Your task to perform on an android device: Open location settings Image 0: 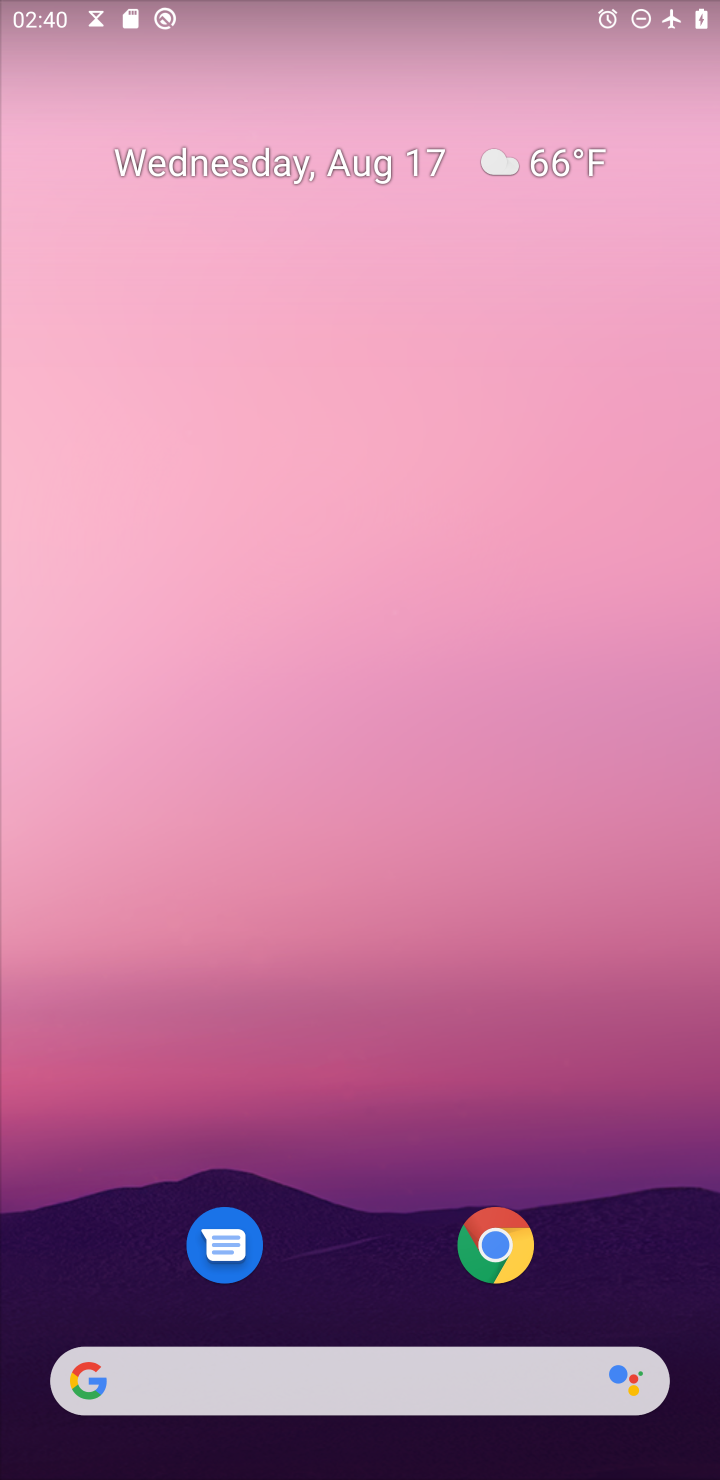
Step 0: drag from (323, 820) to (284, 337)
Your task to perform on an android device: Open location settings Image 1: 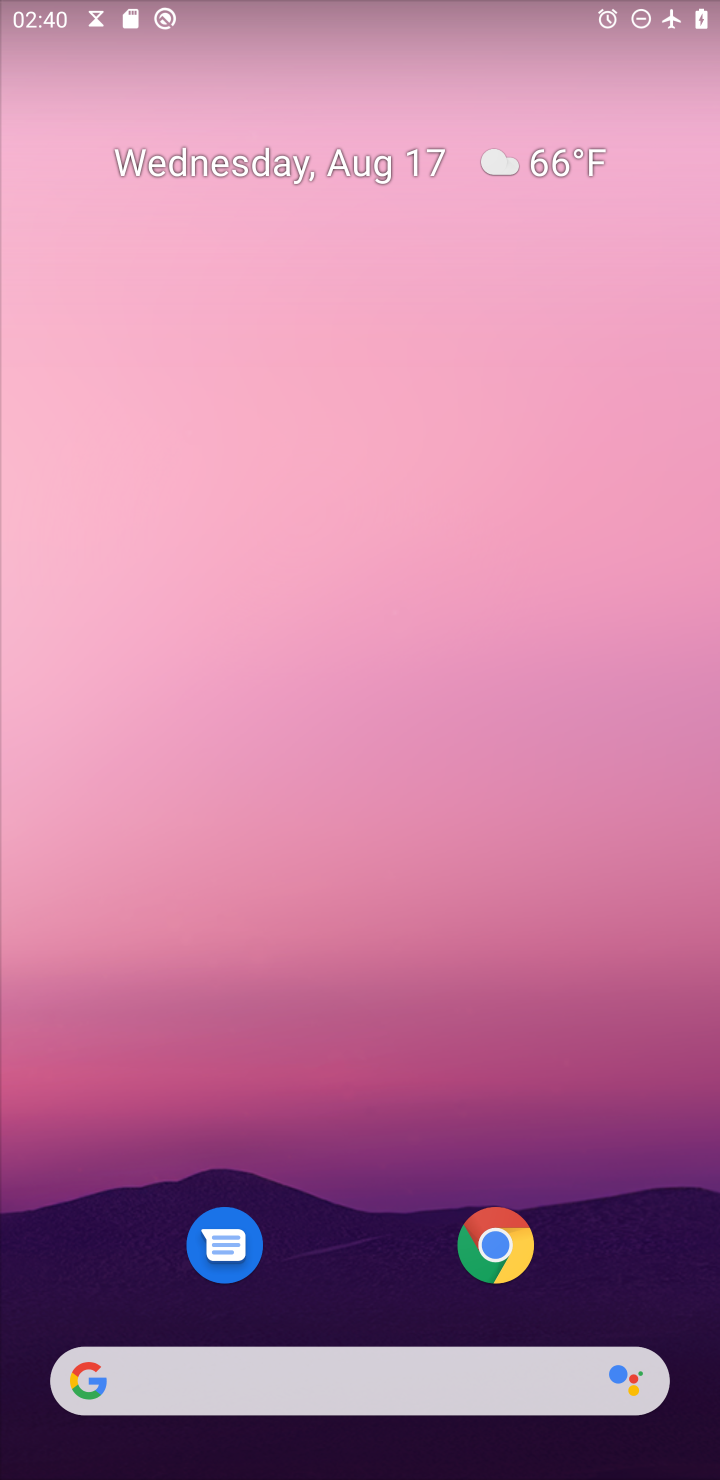
Step 1: drag from (357, 781) to (357, 187)
Your task to perform on an android device: Open location settings Image 2: 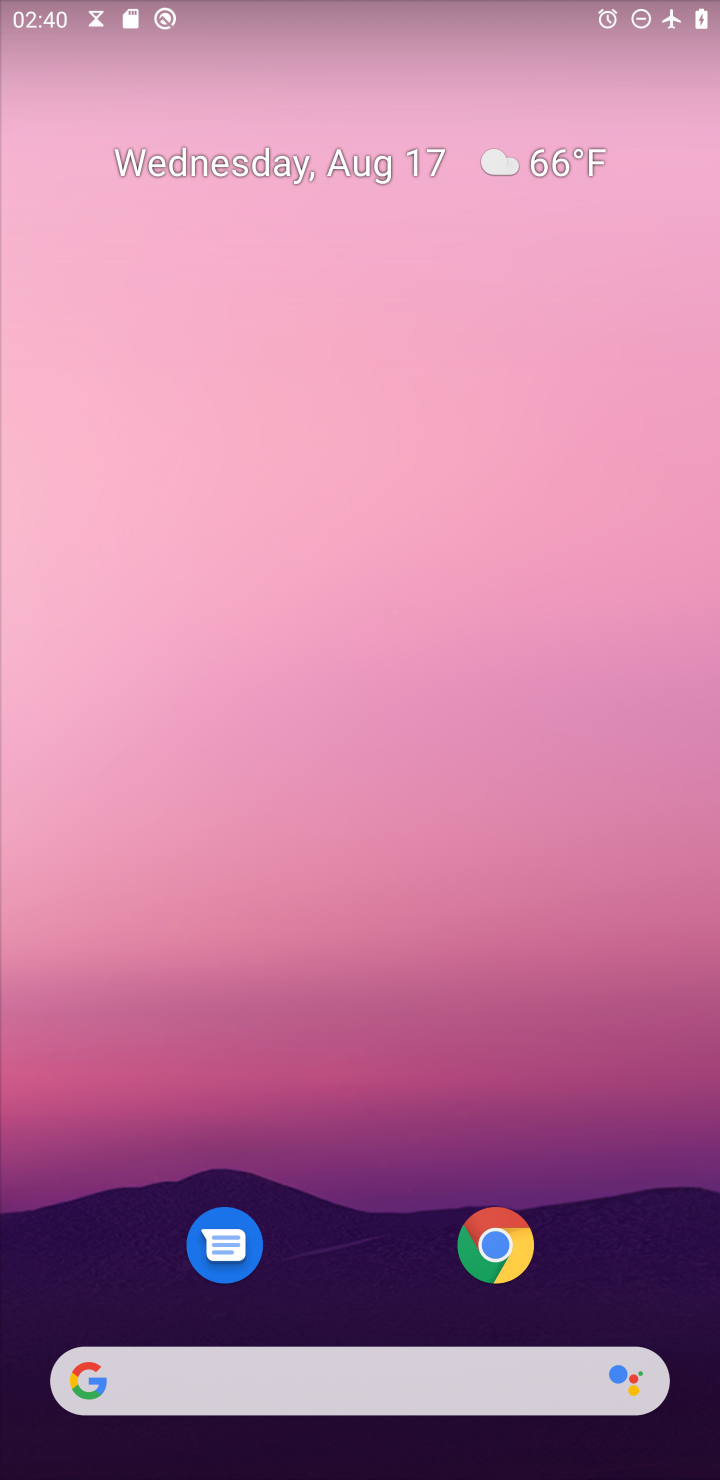
Step 2: drag from (395, 700) to (370, 204)
Your task to perform on an android device: Open location settings Image 3: 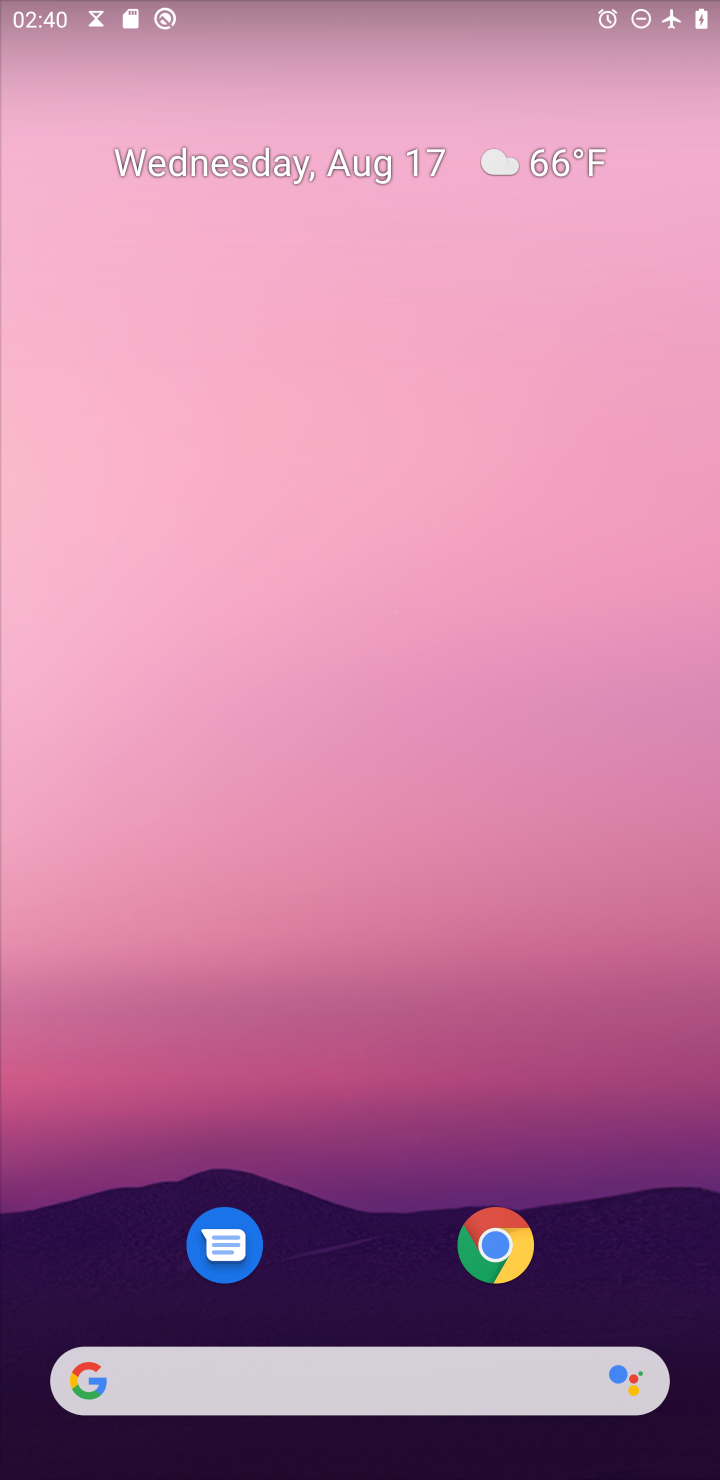
Step 3: drag from (370, 1109) to (370, 9)
Your task to perform on an android device: Open location settings Image 4: 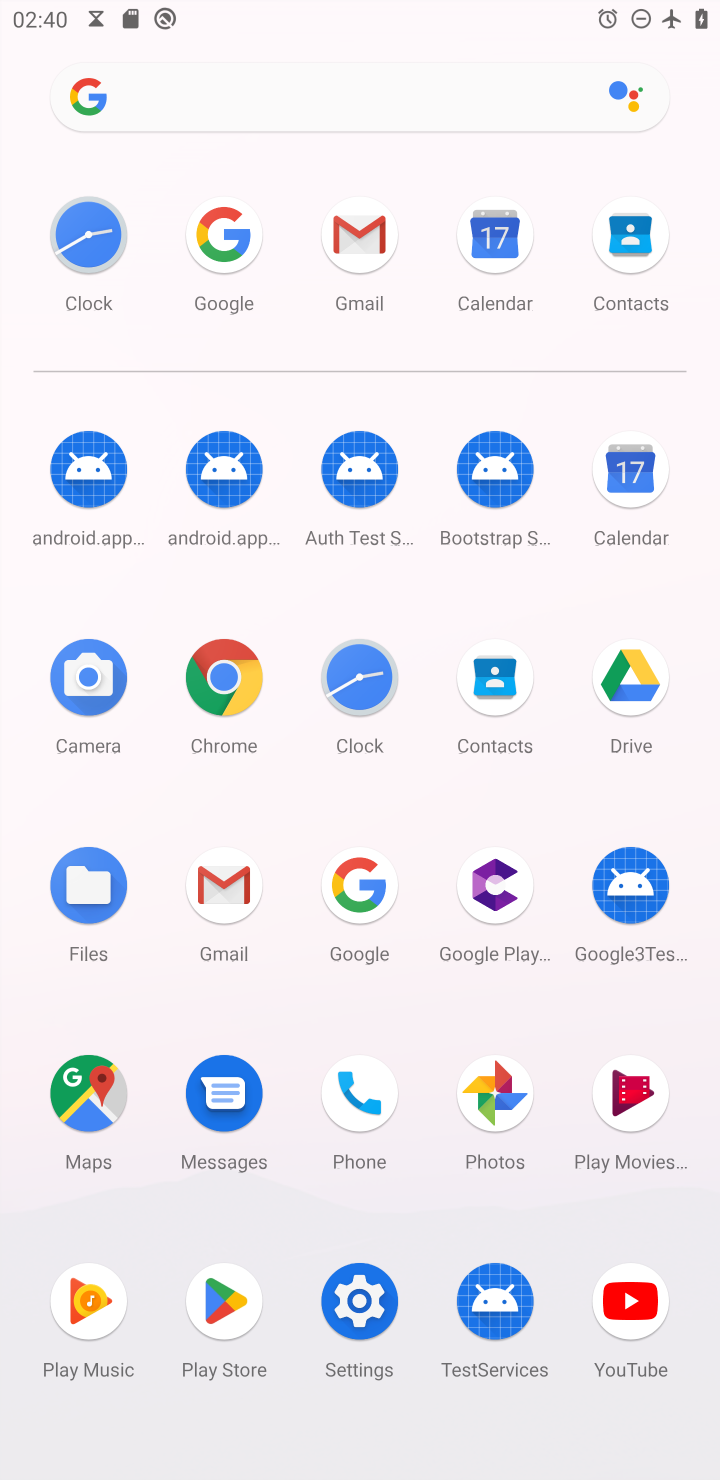
Step 4: click (369, 1297)
Your task to perform on an android device: Open location settings Image 5: 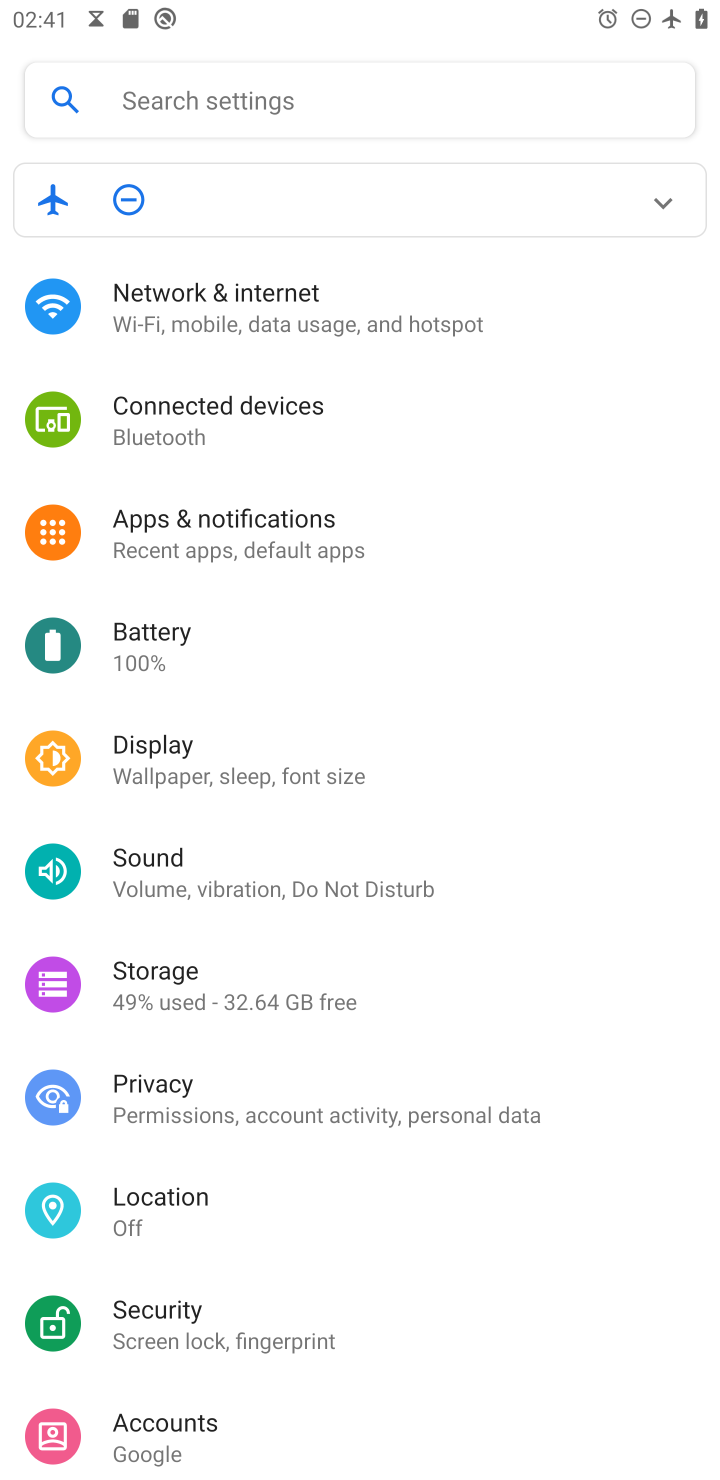
Step 5: click (152, 1189)
Your task to perform on an android device: Open location settings Image 6: 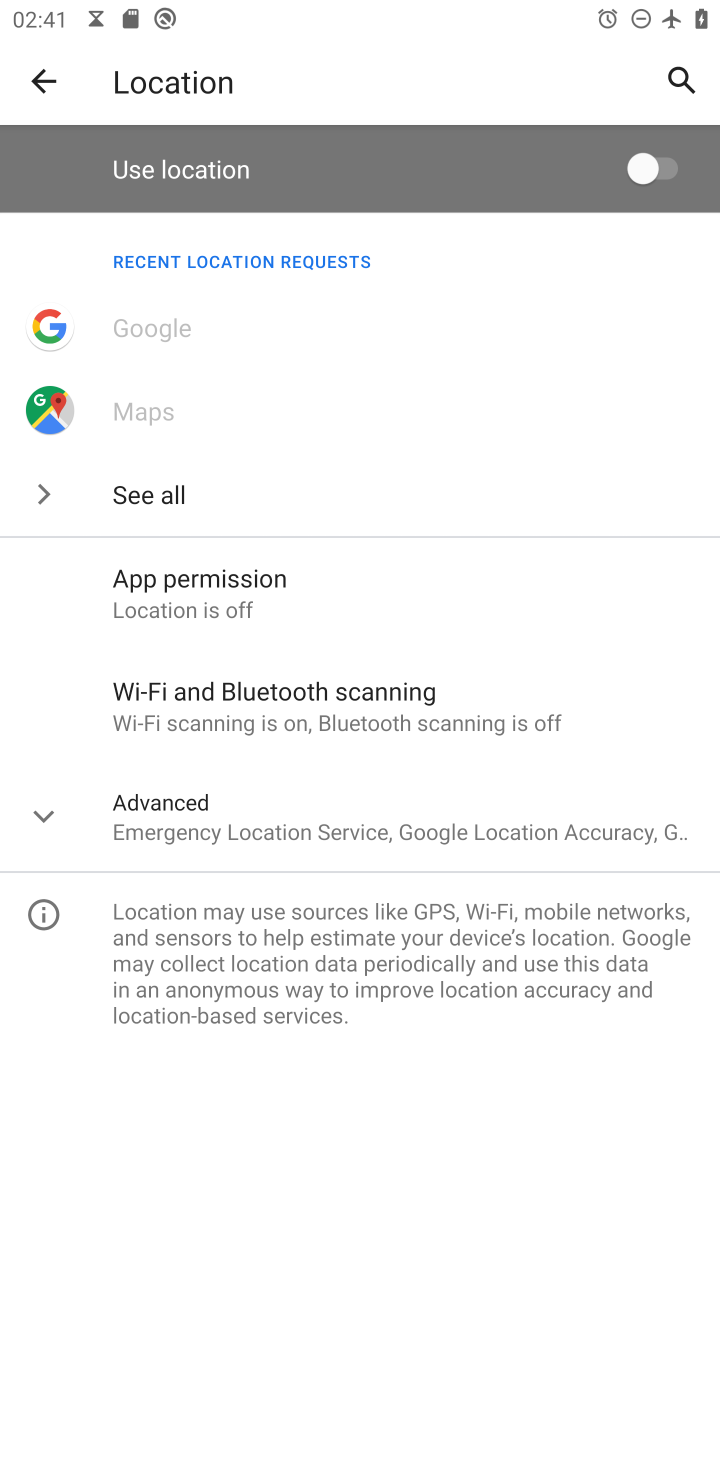
Step 6: task complete